Your task to perform on an android device: empty trash in the gmail app Image 0: 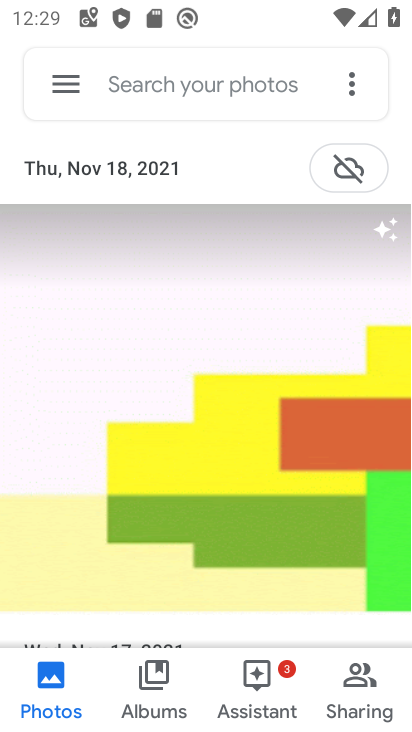
Step 0: press back button
Your task to perform on an android device: empty trash in the gmail app Image 1: 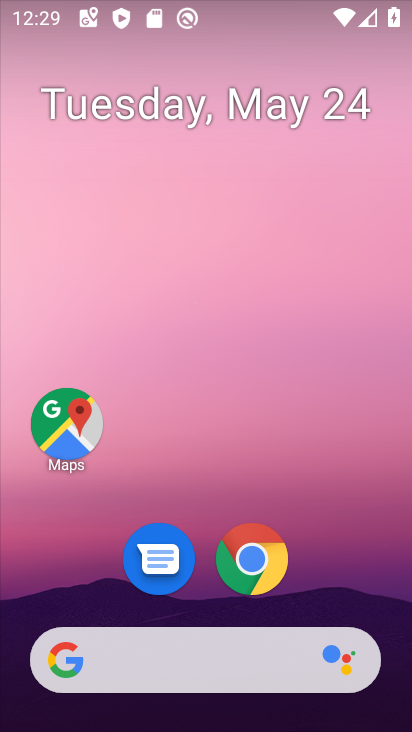
Step 1: drag from (363, 642) to (215, 95)
Your task to perform on an android device: empty trash in the gmail app Image 2: 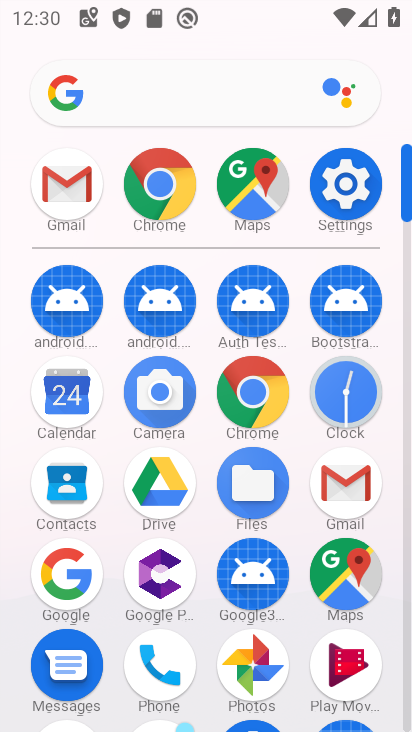
Step 2: click (351, 482)
Your task to perform on an android device: empty trash in the gmail app Image 3: 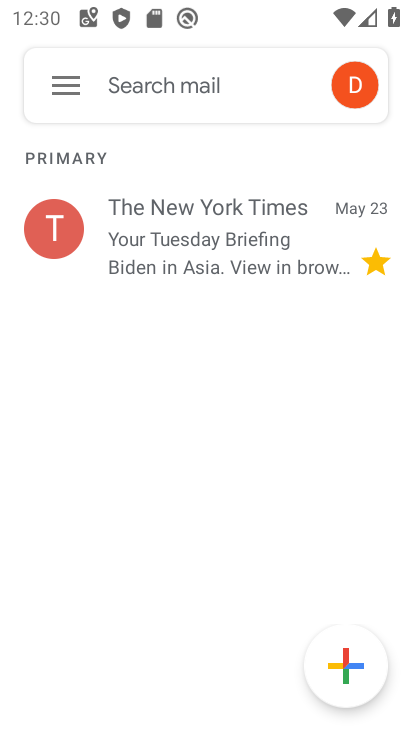
Step 3: press back button
Your task to perform on an android device: empty trash in the gmail app Image 4: 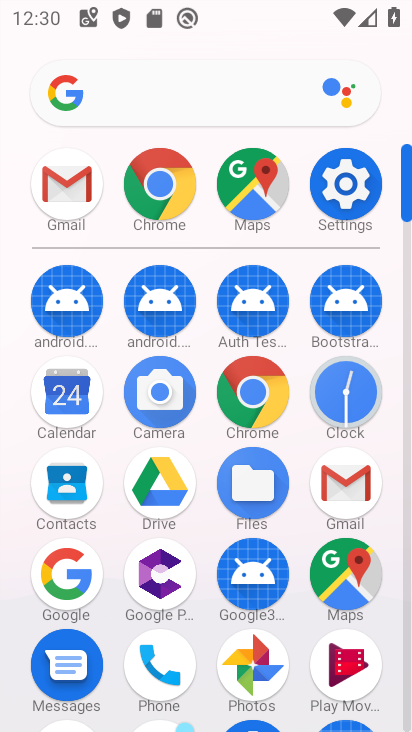
Step 4: click (337, 496)
Your task to perform on an android device: empty trash in the gmail app Image 5: 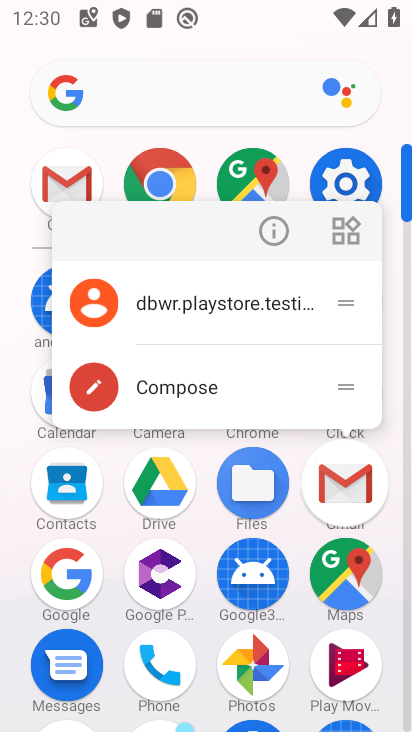
Step 5: click (334, 487)
Your task to perform on an android device: empty trash in the gmail app Image 6: 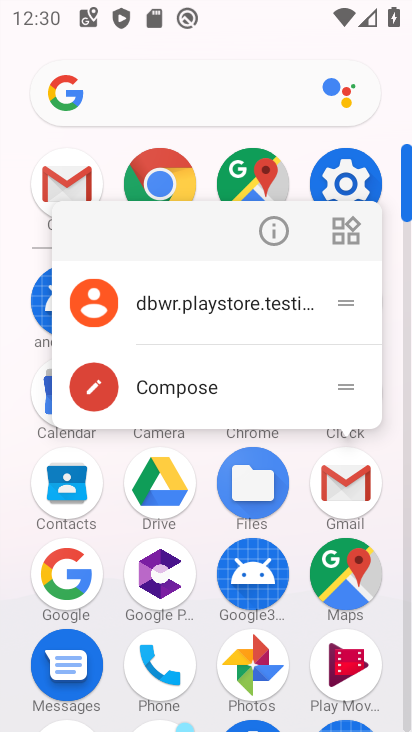
Step 6: click (211, 300)
Your task to perform on an android device: empty trash in the gmail app Image 7: 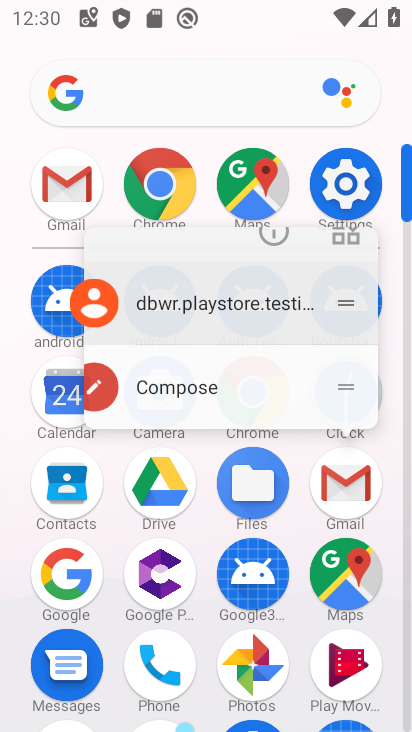
Step 7: click (211, 300)
Your task to perform on an android device: empty trash in the gmail app Image 8: 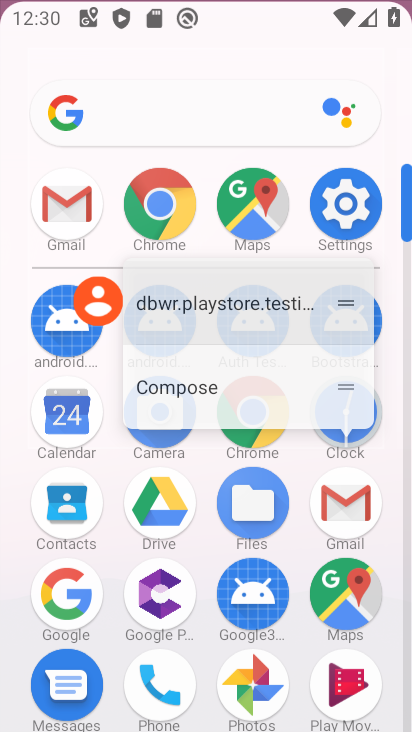
Step 8: click (211, 300)
Your task to perform on an android device: empty trash in the gmail app Image 9: 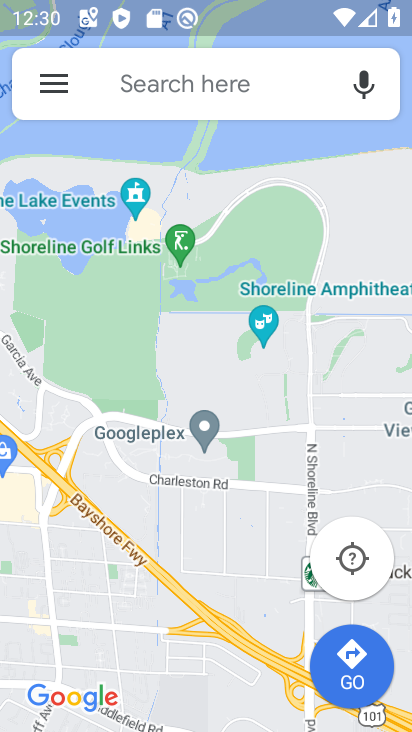
Step 9: press back button
Your task to perform on an android device: empty trash in the gmail app Image 10: 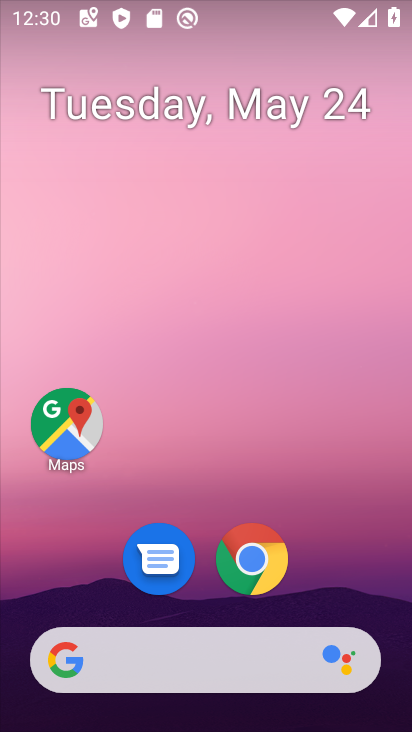
Step 10: drag from (292, 682) to (151, 157)
Your task to perform on an android device: empty trash in the gmail app Image 11: 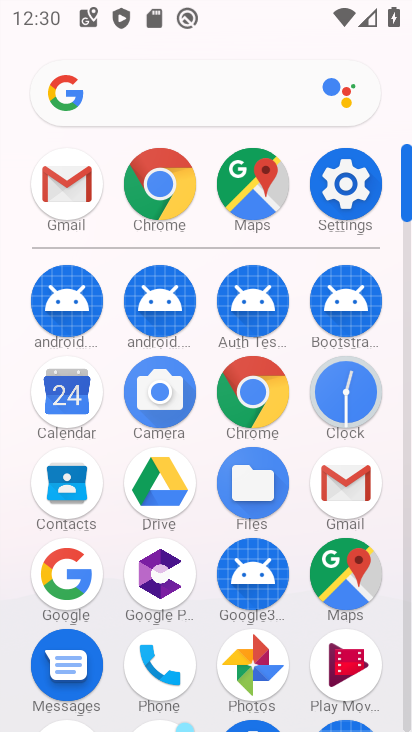
Step 11: click (346, 478)
Your task to perform on an android device: empty trash in the gmail app Image 12: 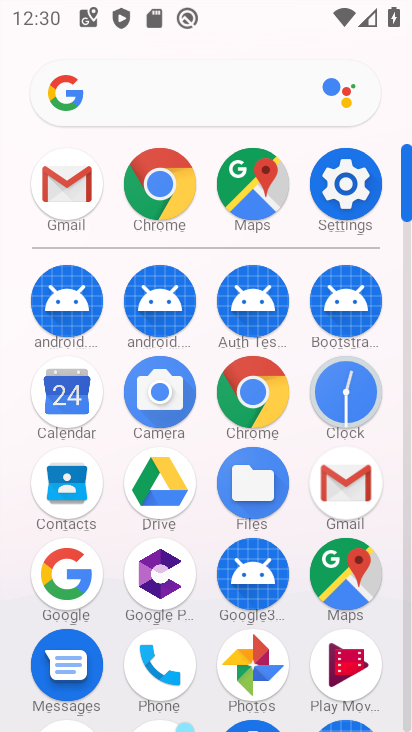
Step 12: click (346, 478)
Your task to perform on an android device: empty trash in the gmail app Image 13: 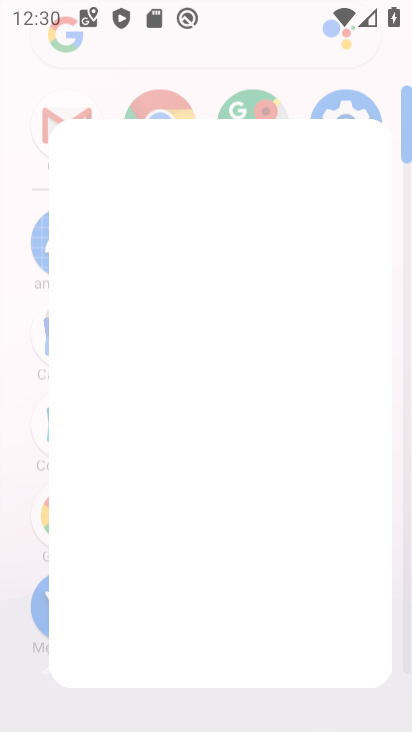
Step 13: click (347, 480)
Your task to perform on an android device: empty trash in the gmail app Image 14: 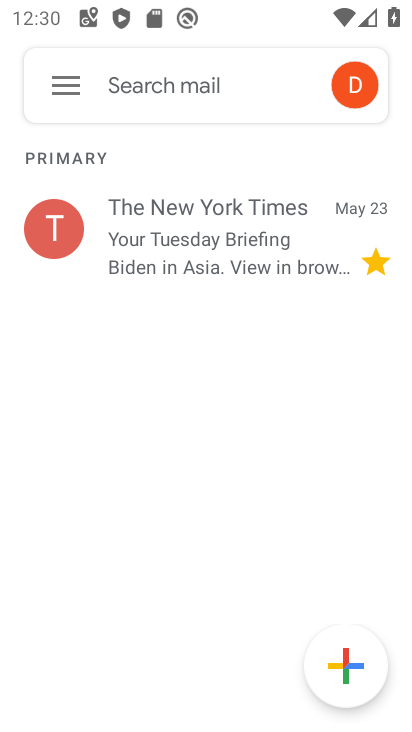
Step 14: click (174, 256)
Your task to perform on an android device: empty trash in the gmail app Image 15: 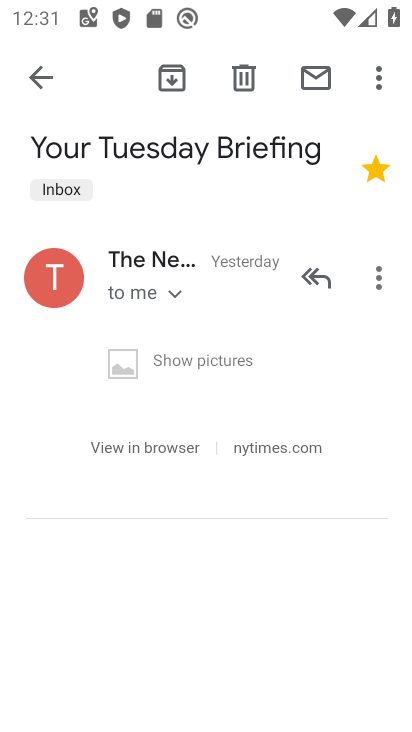
Step 15: click (32, 68)
Your task to perform on an android device: empty trash in the gmail app Image 16: 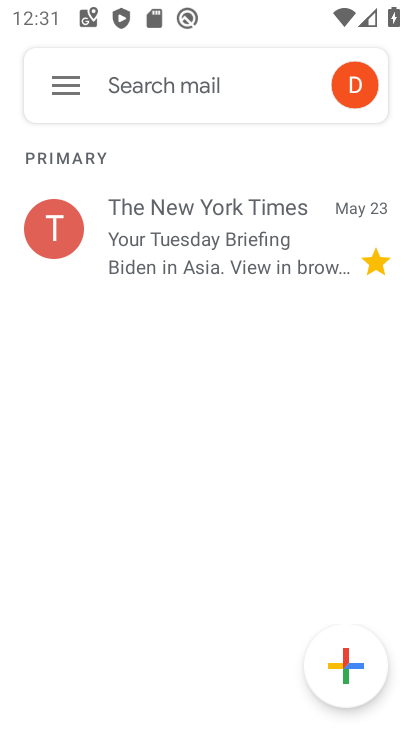
Step 16: click (70, 87)
Your task to perform on an android device: empty trash in the gmail app Image 17: 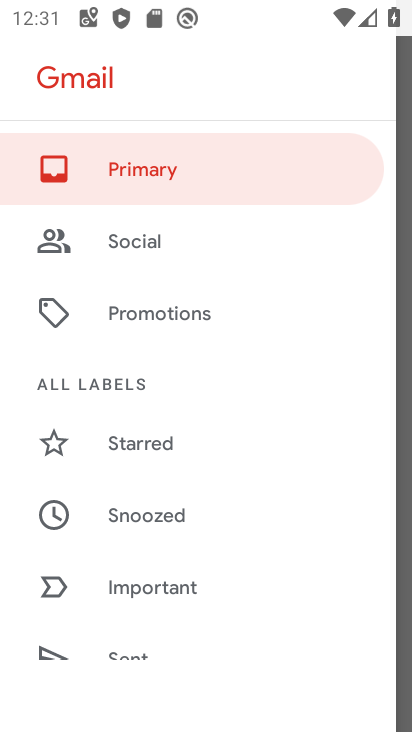
Step 17: click (406, 328)
Your task to perform on an android device: empty trash in the gmail app Image 18: 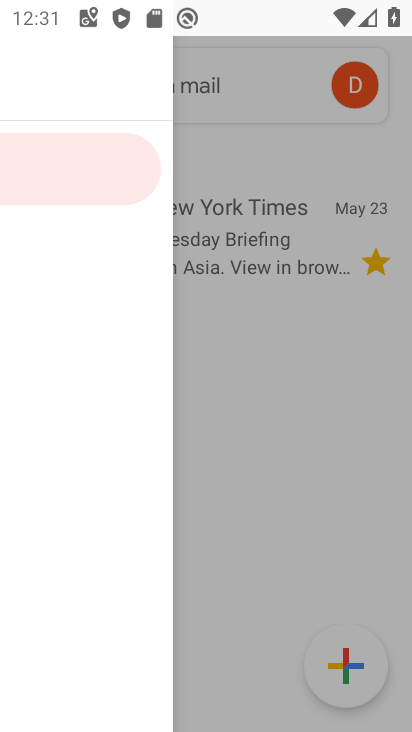
Step 18: click (406, 328)
Your task to perform on an android device: empty trash in the gmail app Image 19: 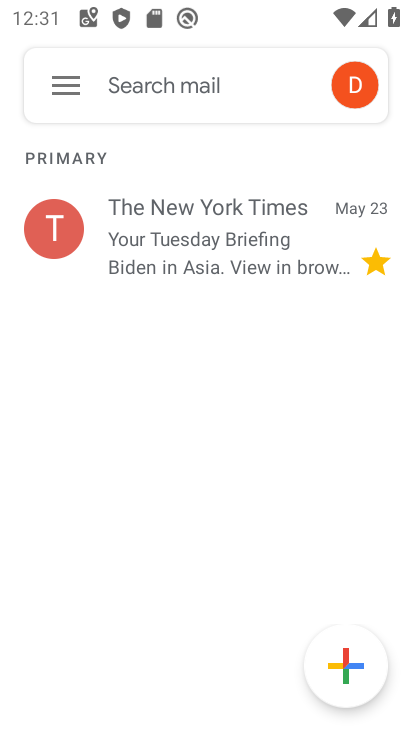
Step 19: click (401, 334)
Your task to perform on an android device: empty trash in the gmail app Image 20: 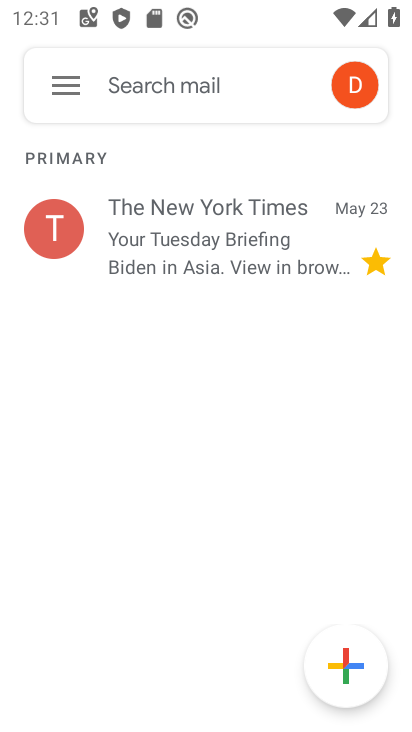
Step 20: click (77, 78)
Your task to perform on an android device: empty trash in the gmail app Image 21: 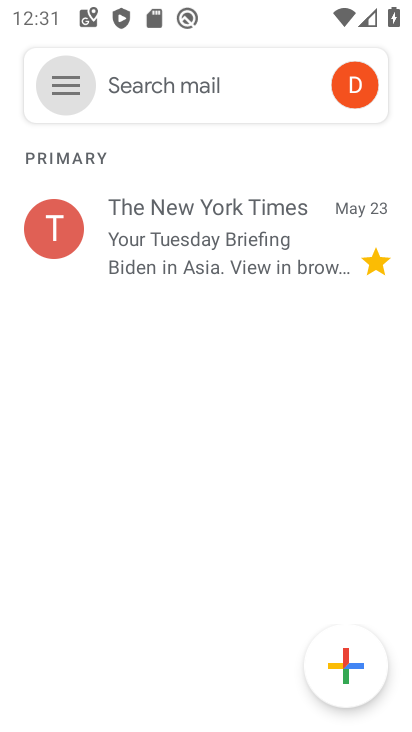
Step 21: click (78, 79)
Your task to perform on an android device: empty trash in the gmail app Image 22: 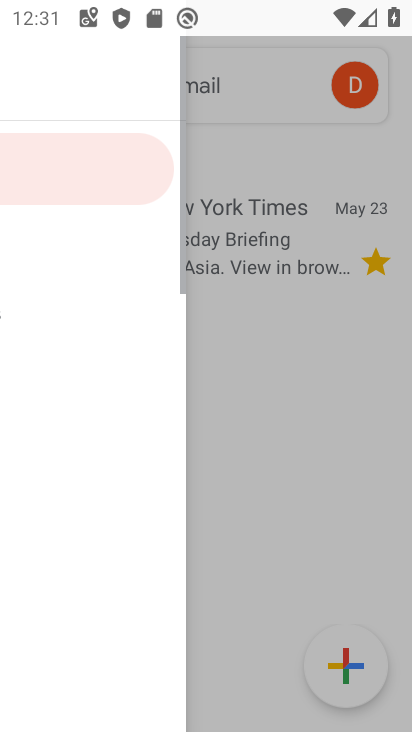
Step 22: click (78, 79)
Your task to perform on an android device: empty trash in the gmail app Image 23: 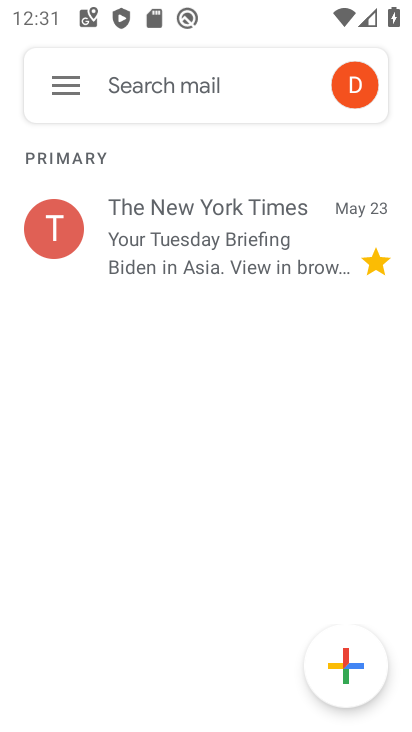
Step 23: click (73, 90)
Your task to perform on an android device: empty trash in the gmail app Image 24: 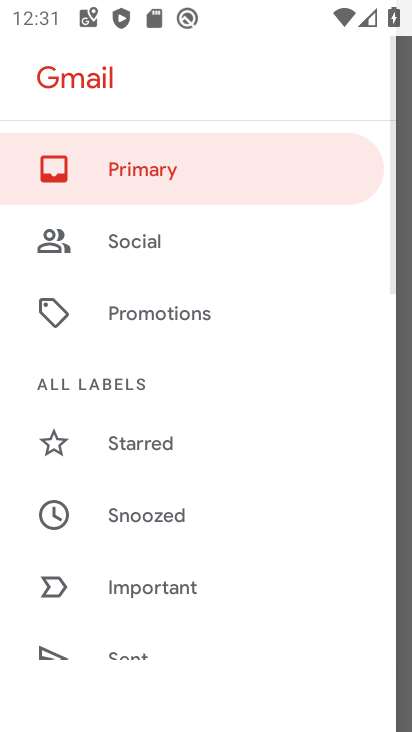
Step 24: drag from (140, 565) to (134, 193)
Your task to perform on an android device: empty trash in the gmail app Image 25: 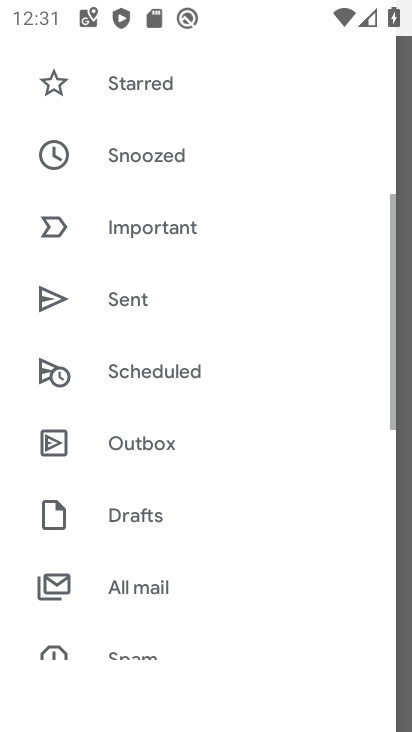
Step 25: drag from (180, 473) to (166, 94)
Your task to perform on an android device: empty trash in the gmail app Image 26: 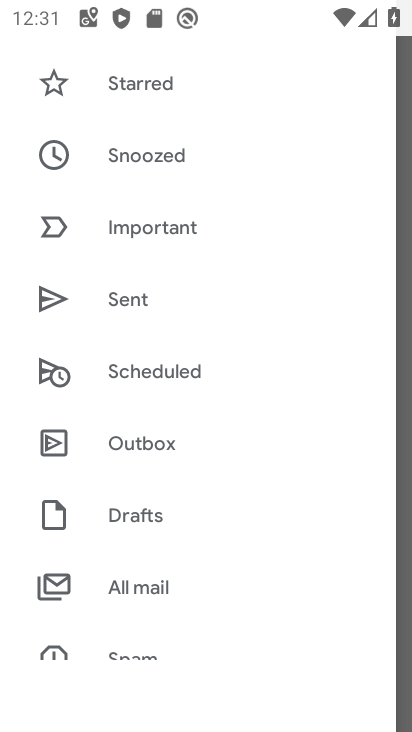
Step 26: drag from (167, 542) to (153, 171)
Your task to perform on an android device: empty trash in the gmail app Image 27: 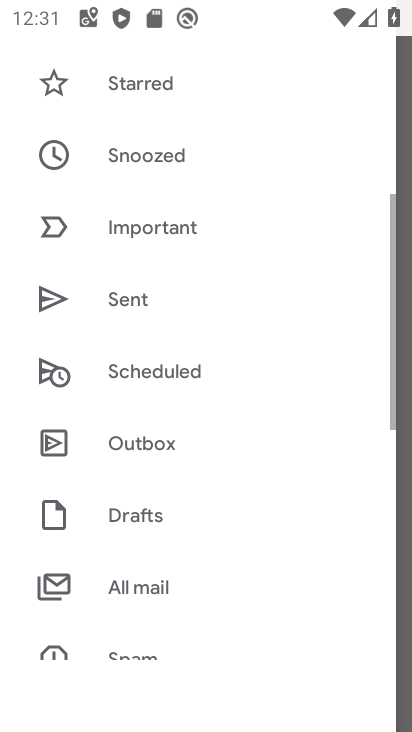
Step 27: drag from (224, 483) to (205, 160)
Your task to perform on an android device: empty trash in the gmail app Image 28: 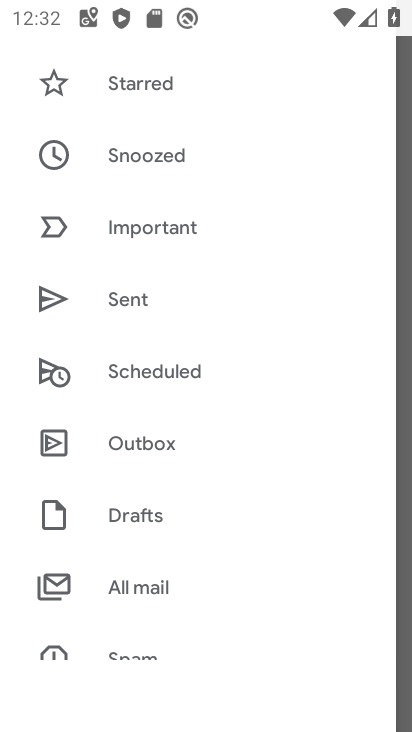
Step 28: drag from (134, 514) to (121, 39)
Your task to perform on an android device: empty trash in the gmail app Image 29: 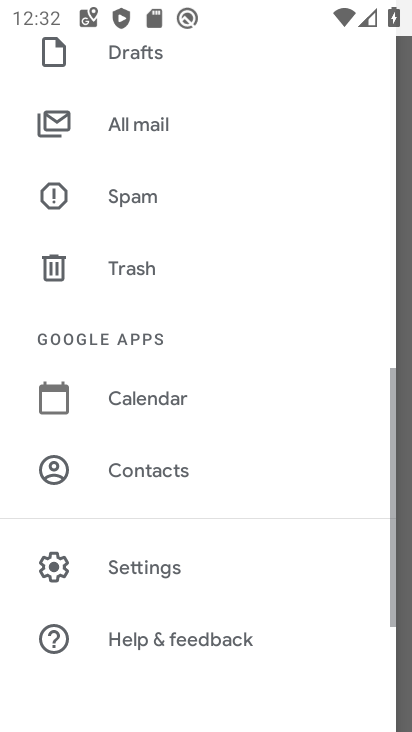
Step 29: drag from (180, 457) to (186, 45)
Your task to perform on an android device: empty trash in the gmail app Image 30: 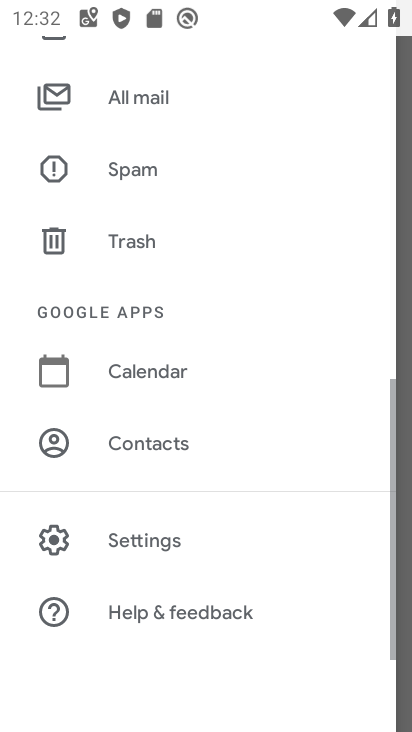
Step 30: click (122, 230)
Your task to perform on an android device: empty trash in the gmail app Image 31: 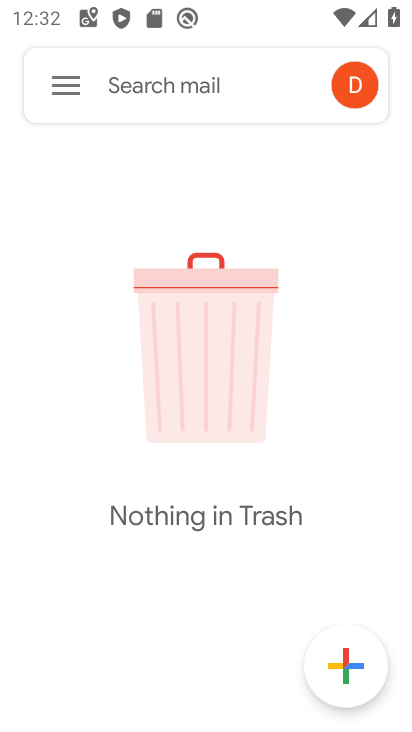
Step 31: task complete